Your task to perform on an android device: add a contact in the contacts app Image 0: 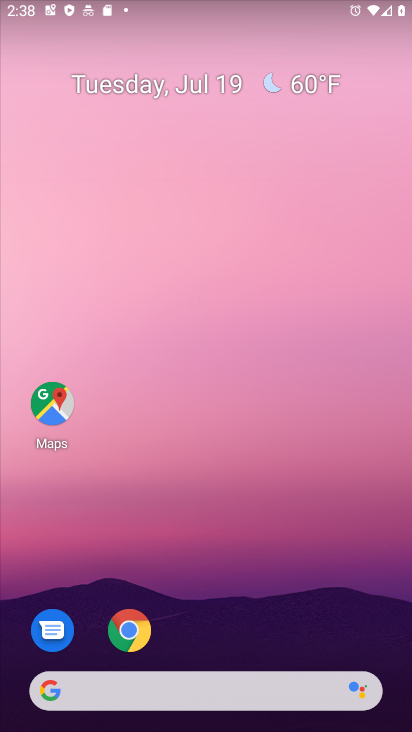
Step 0: drag from (137, 330) to (115, 238)
Your task to perform on an android device: add a contact in the contacts app Image 1: 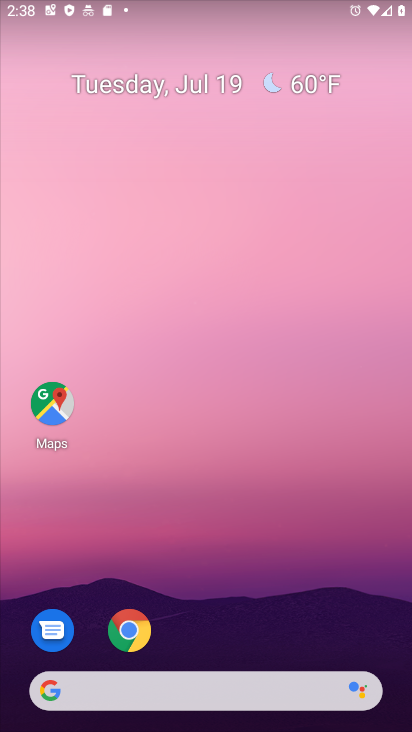
Step 1: drag from (223, 516) to (184, 153)
Your task to perform on an android device: add a contact in the contacts app Image 2: 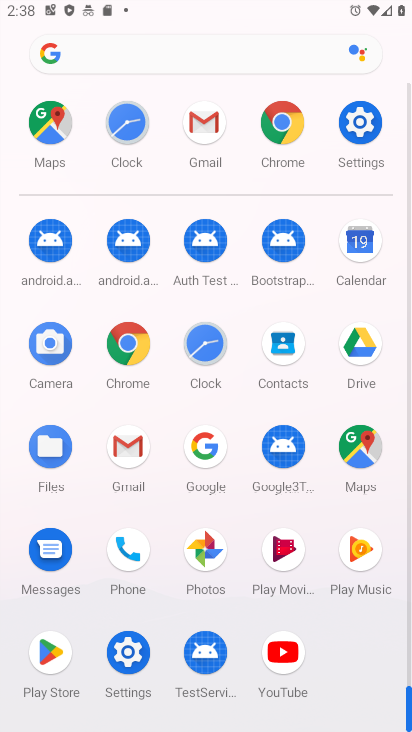
Step 2: drag from (210, 434) to (169, 209)
Your task to perform on an android device: add a contact in the contacts app Image 3: 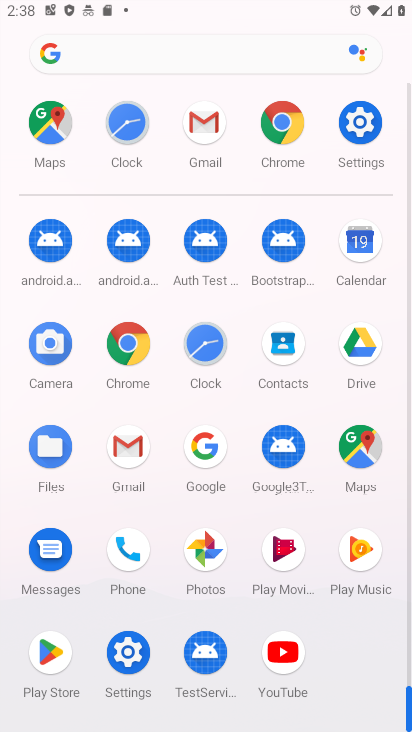
Step 3: click (362, 123)
Your task to perform on an android device: add a contact in the contacts app Image 4: 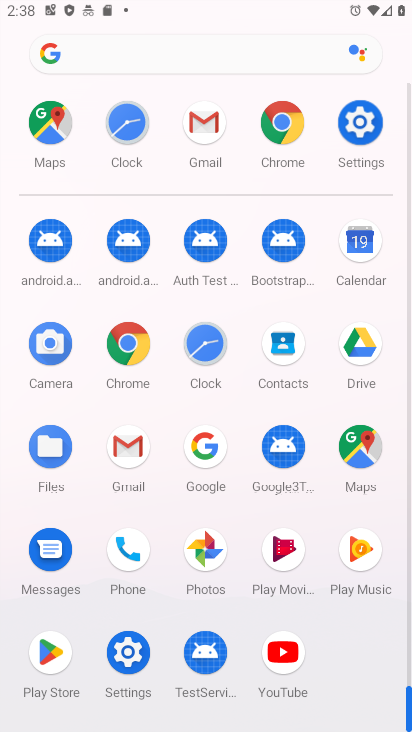
Step 4: click (364, 137)
Your task to perform on an android device: add a contact in the contacts app Image 5: 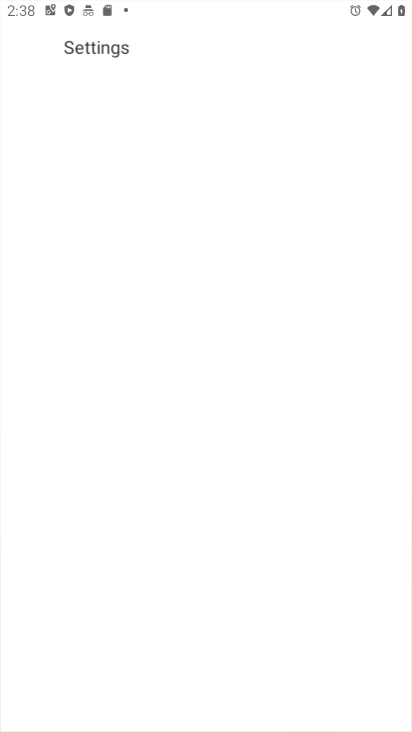
Step 5: click (364, 137)
Your task to perform on an android device: add a contact in the contacts app Image 6: 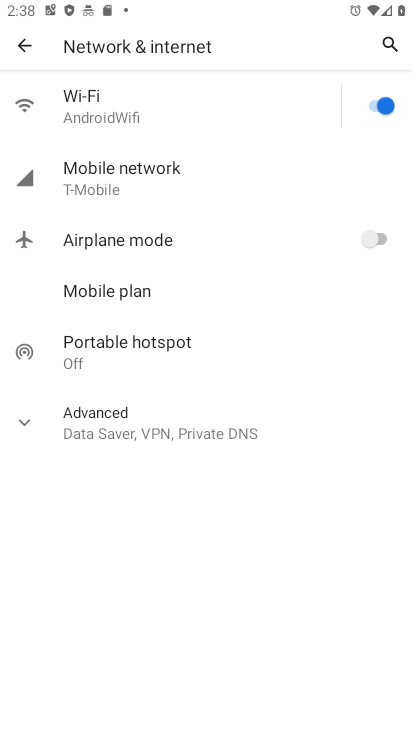
Step 6: click (25, 44)
Your task to perform on an android device: add a contact in the contacts app Image 7: 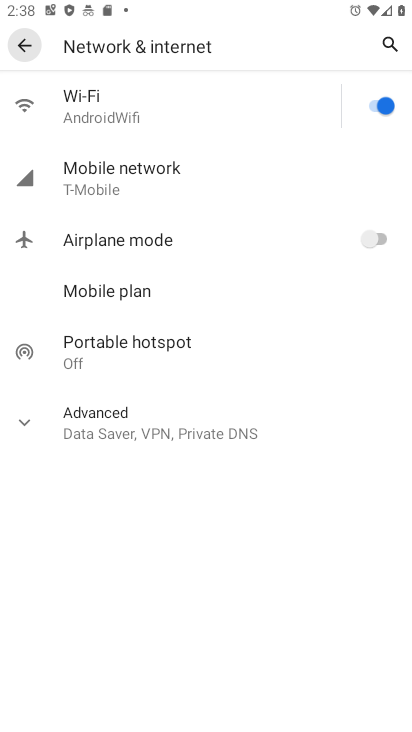
Step 7: click (25, 44)
Your task to perform on an android device: add a contact in the contacts app Image 8: 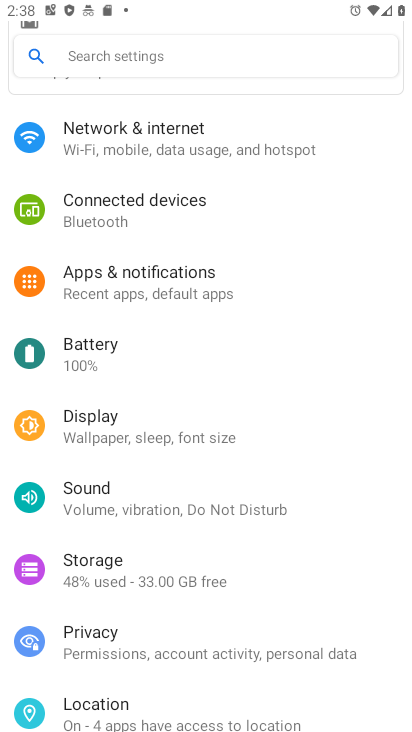
Step 8: click (111, 214)
Your task to perform on an android device: add a contact in the contacts app Image 9: 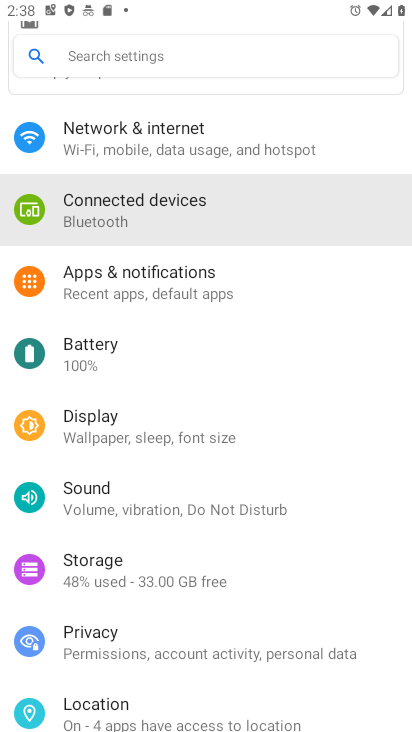
Step 9: click (111, 214)
Your task to perform on an android device: add a contact in the contacts app Image 10: 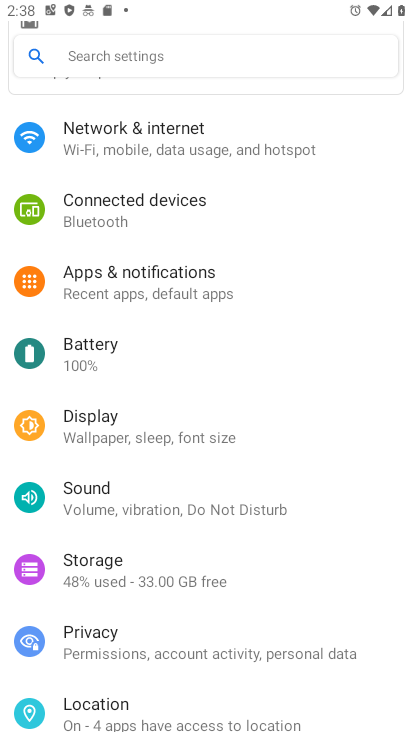
Step 10: click (111, 214)
Your task to perform on an android device: add a contact in the contacts app Image 11: 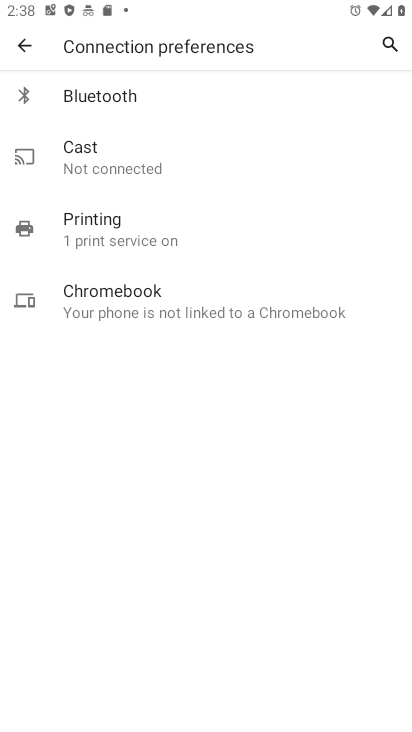
Step 11: task complete